Your task to perform on an android device: stop showing notifications on the lock screen Image 0: 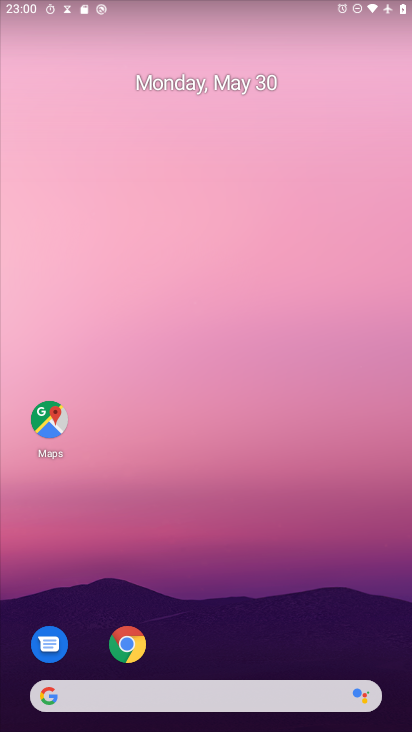
Step 0: drag from (194, 657) to (242, 80)
Your task to perform on an android device: stop showing notifications on the lock screen Image 1: 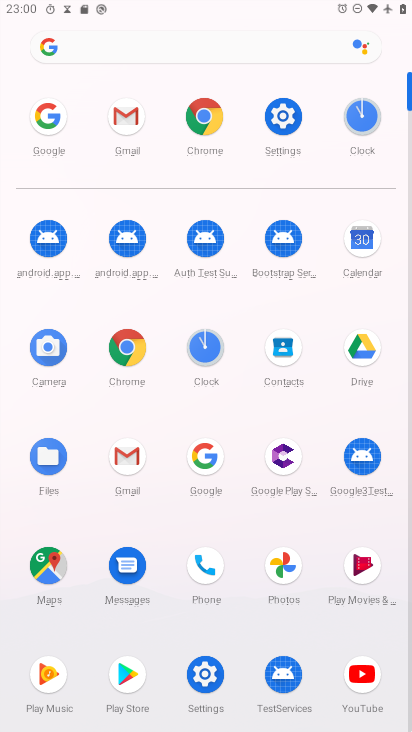
Step 1: click (283, 102)
Your task to perform on an android device: stop showing notifications on the lock screen Image 2: 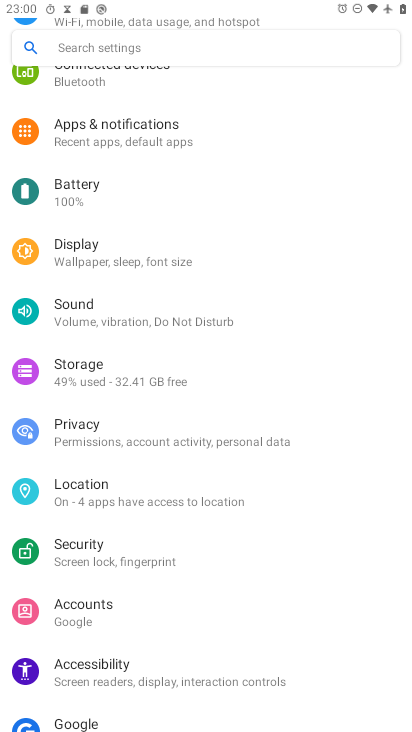
Step 2: click (79, 136)
Your task to perform on an android device: stop showing notifications on the lock screen Image 3: 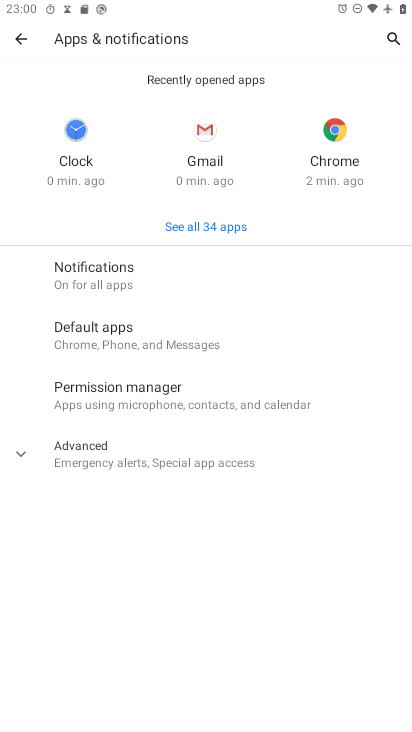
Step 3: click (107, 275)
Your task to perform on an android device: stop showing notifications on the lock screen Image 4: 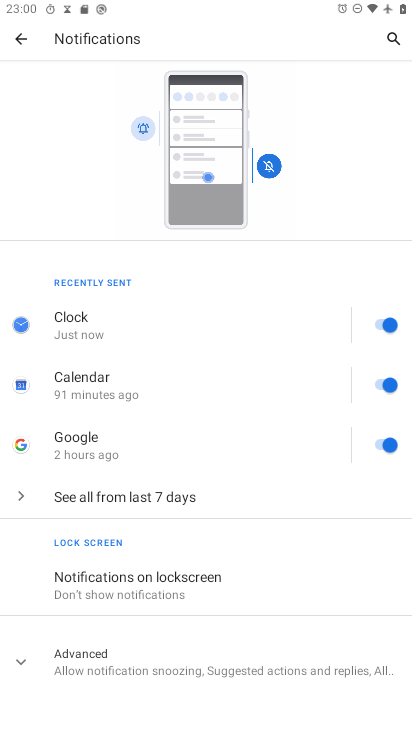
Step 4: click (142, 584)
Your task to perform on an android device: stop showing notifications on the lock screen Image 5: 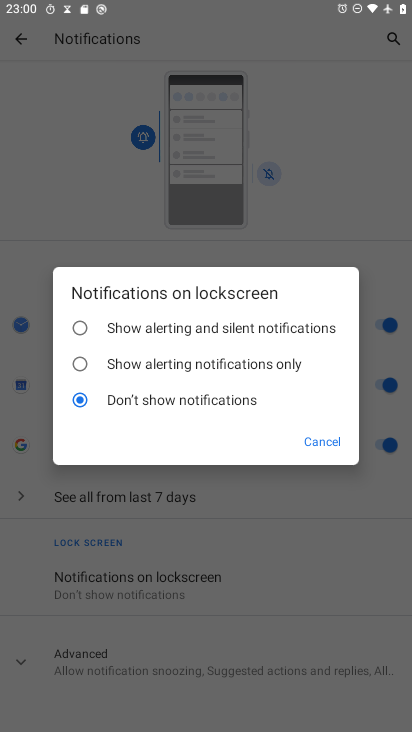
Step 5: task complete